Your task to perform on an android device: Open the web browser Image 0: 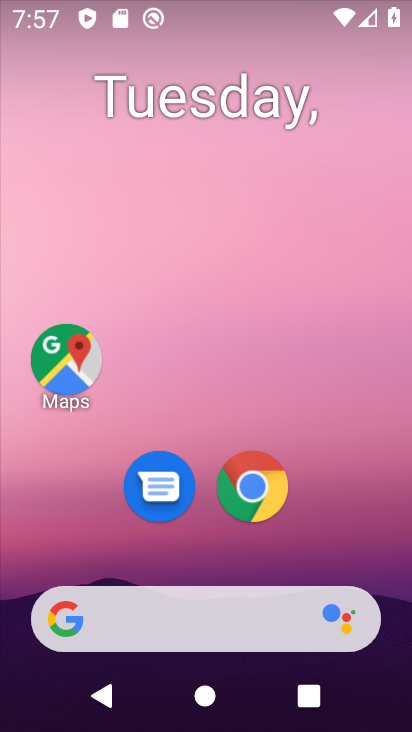
Step 0: click (263, 470)
Your task to perform on an android device: Open the web browser Image 1: 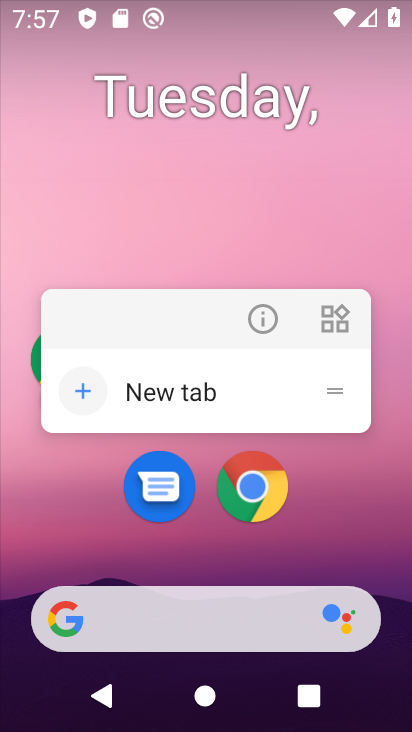
Step 1: click (257, 495)
Your task to perform on an android device: Open the web browser Image 2: 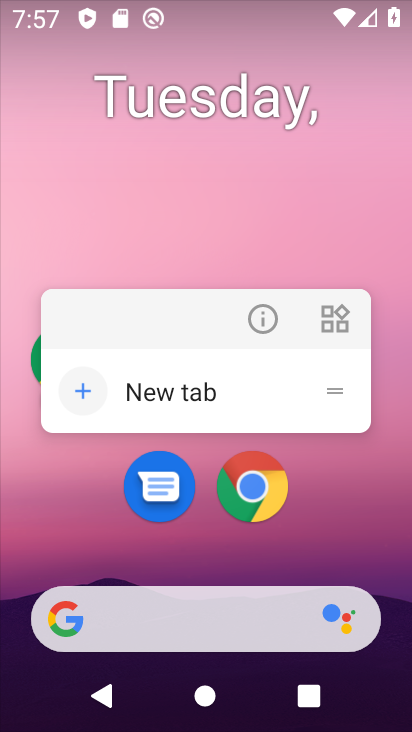
Step 2: click (257, 495)
Your task to perform on an android device: Open the web browser Image 3: 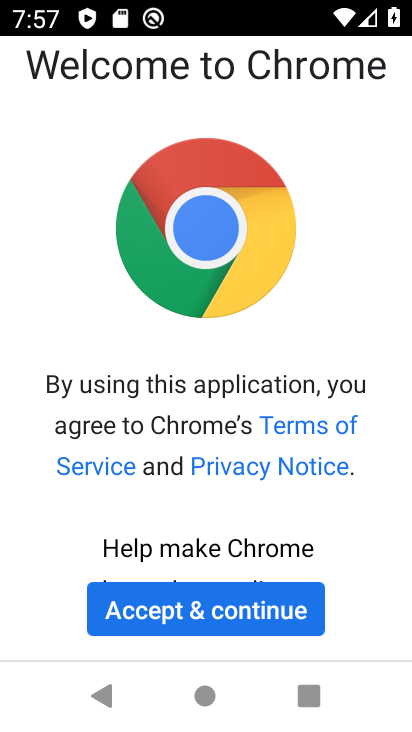
Step 3: click (217, 608)
Your task to perform on an android device: Open the web browser Image 4: 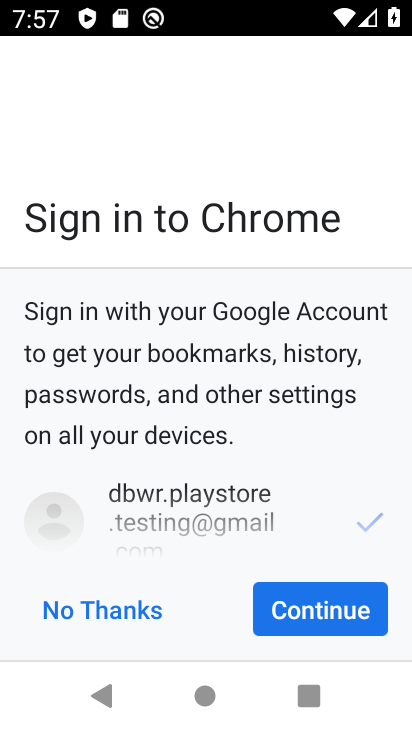
Step 4: click (305, 620)
Your task to perform on an android device: Open the web browser Image 5: 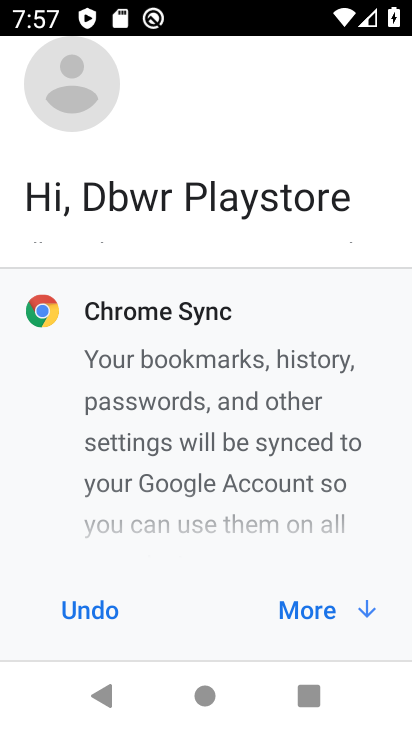
Step 5: click (299, 618)
Your task to perform on an android device: Open the web browser Image 6: 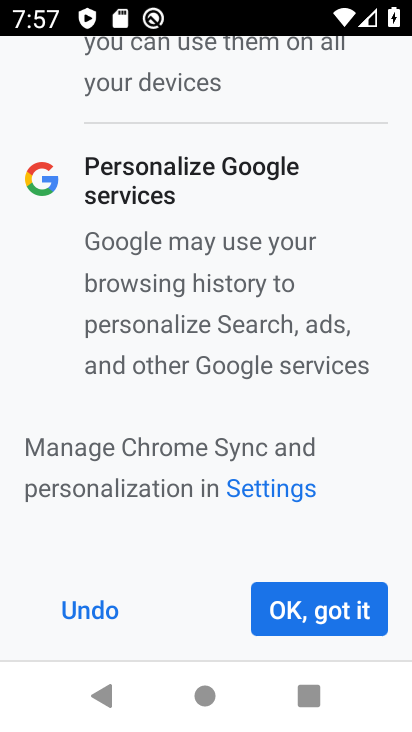
Step 6: click (299, 618)
Your task to perform on an android device: Open the web browser Image 7: 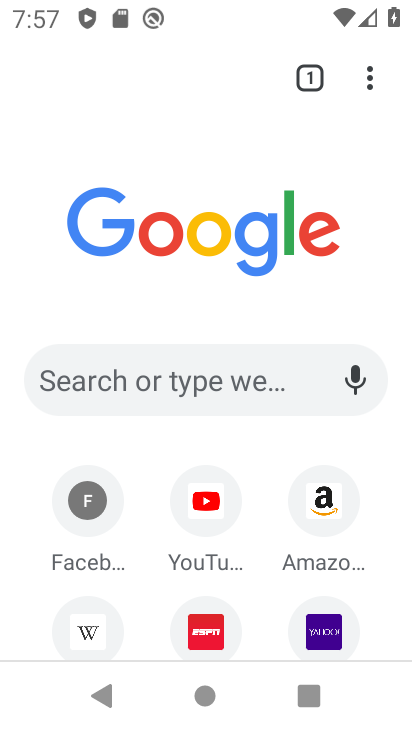
Step 7: task complete